Your task to perform on an android device: Open calendar and show me the fourth week of next month Image 0: 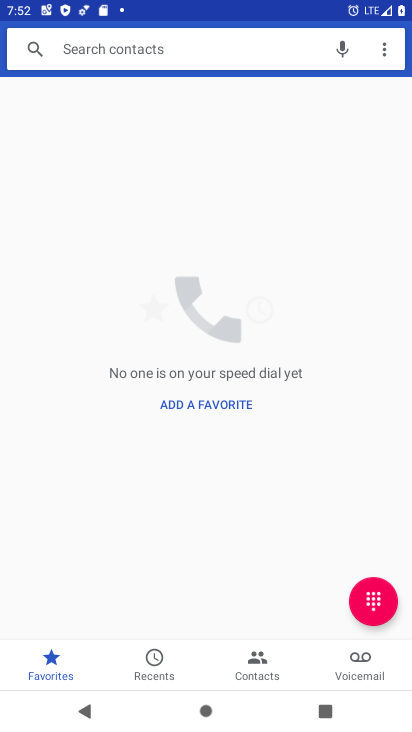
Step 0: press home button
Your task to perform on an android device: Open calendar and show me the fourth week of next month Image 1: 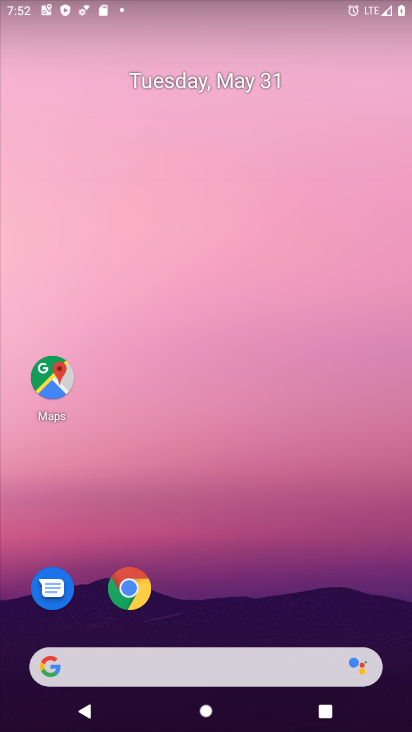
Step 1: drag from (188, 628) to (275, 189)
Your task to perform on an android device: Open calendar and show me the fourth week of next month Image 2: 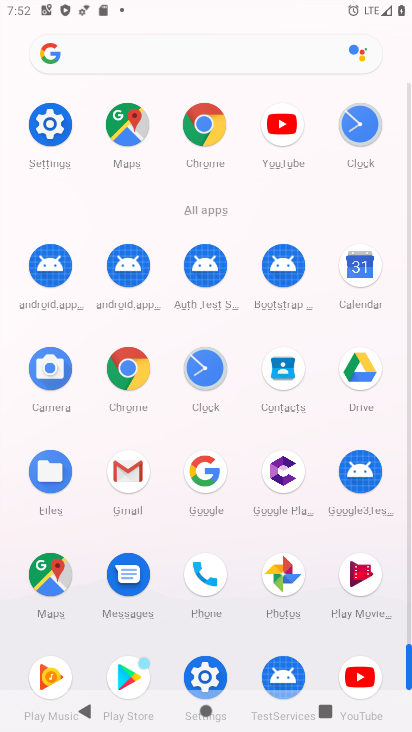
Step 2: click (349, 265)
Your task to perform on an android device: Open calendar and show me the fourth week of next month Image 3: 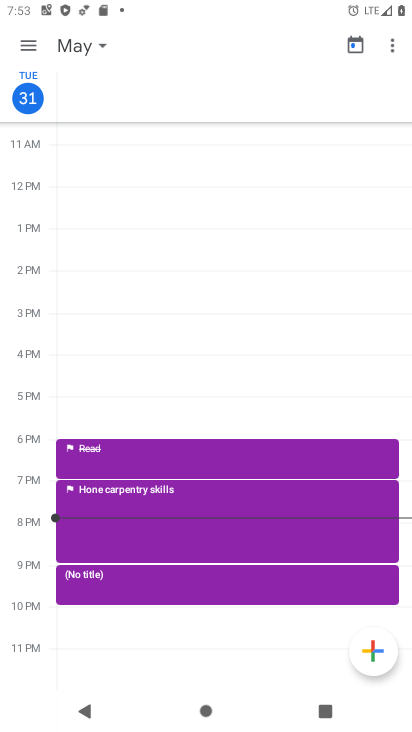
Step 3: click (23, 34)
Your task to perform on an android device: Open calendar and show me the fourth week of next month Image 4: 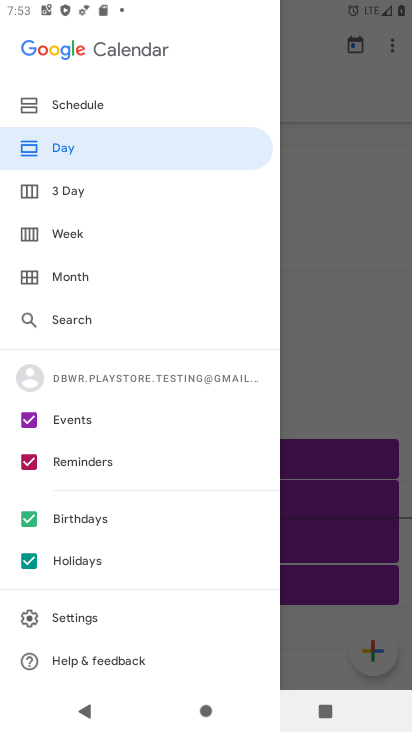
Step 4: click (83, 230)
Your task to perform on an android device: Open calendar and show me the fourth week of next month Image 5: 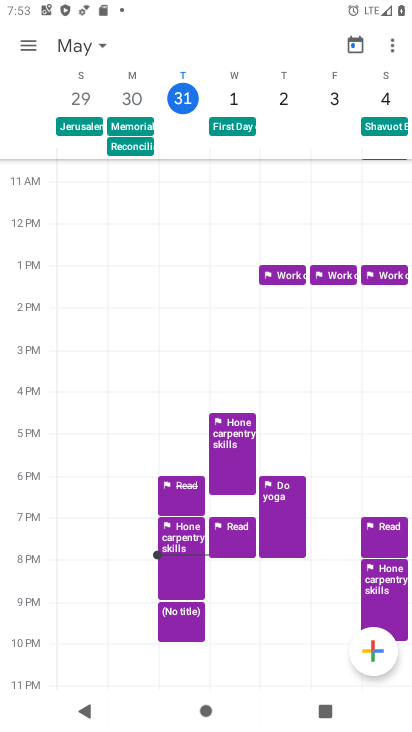
Step 5: task complete